Your task to perform on an android device: turn off wifi Image 0: 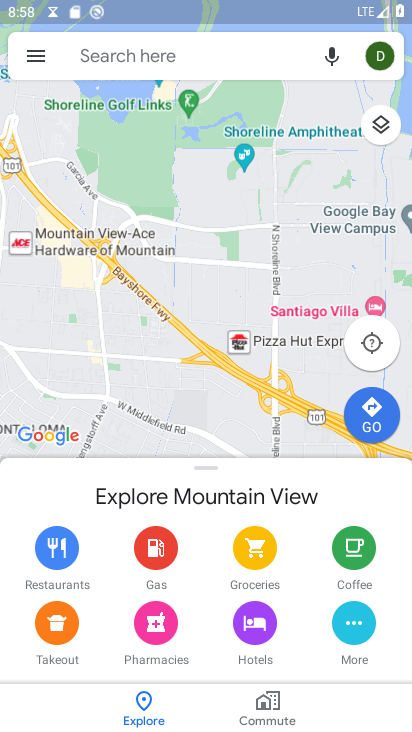
Step 0: press home button
Your task to perform on an android device: turn off wifi Image 1: 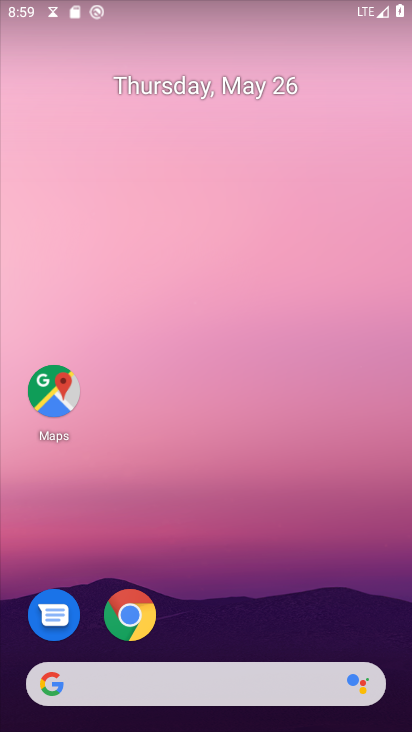
Step 1: drag from (242, 625) to (275, 284)
Your task to perform on an android device: turn off wifi Image 2: 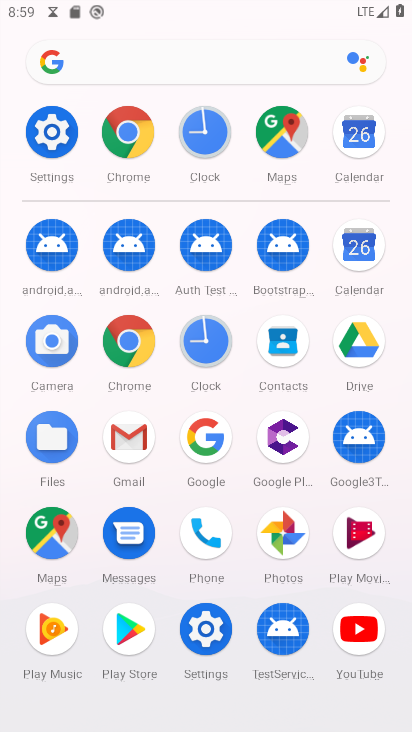
Step 2: click (39, 121)
Your task to perform on an android device: turn off wifi Image 3: 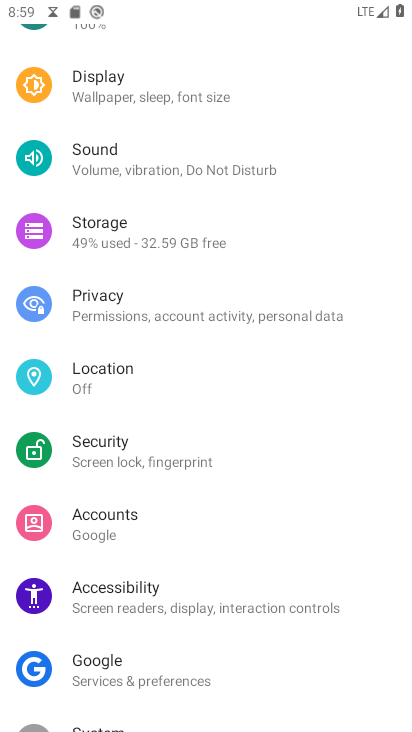
Step 3: drag from (205, 148) to (199, 623)
Your task to perform on an android device: turn off wifi Image 4: 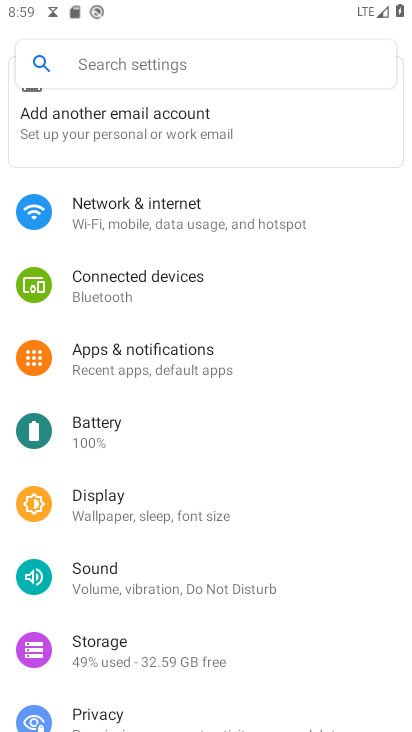
Step 4: click (190, 209)
Your task to perform on an android device: turn off wifi Image 5: 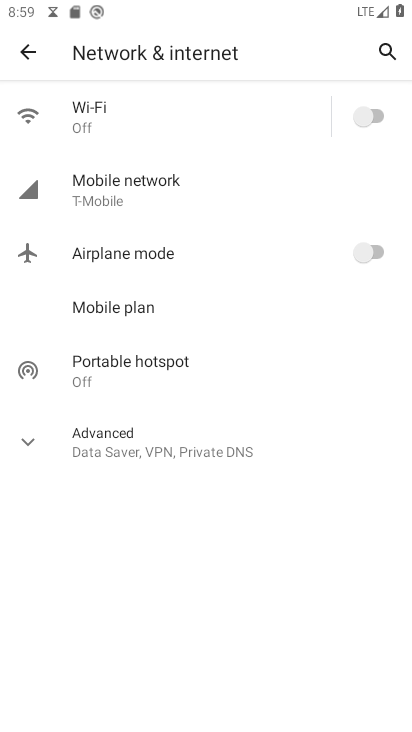
Step 5: task complete